Your task to perform on an android device: Go to Yahoo.com Image 0: 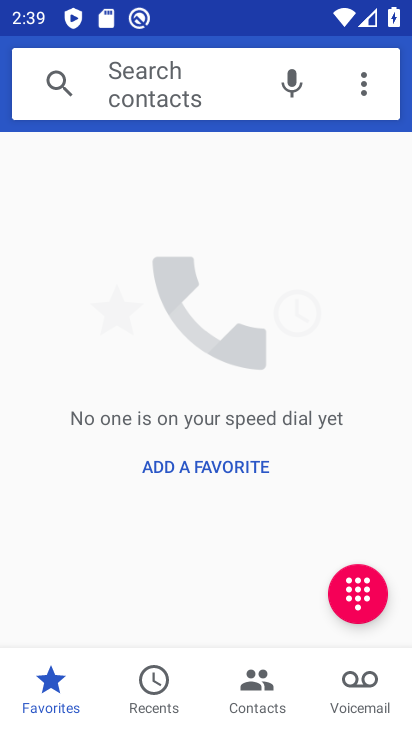
Step 0: press home button
Your task to perform on an android device: Go to Yahoo.com Image 1: 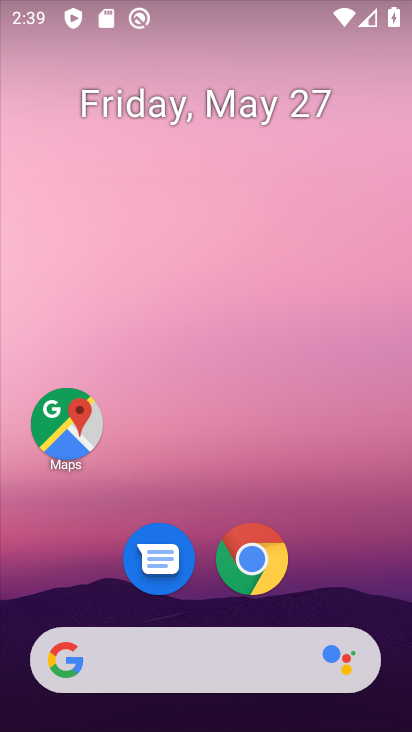
Step 1: click (253, 559)
Your task to perform on an android device: Go to Yahoo.com Image 2: 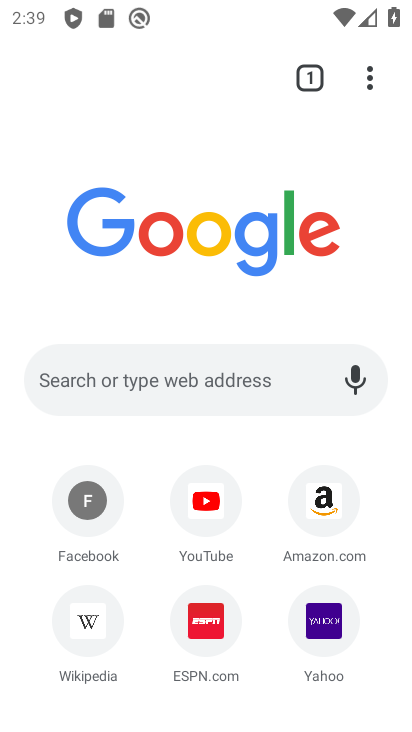
Step 2: click (253, 559)
Your task to perform on an android device: Go to Yahoo.com Image 3: 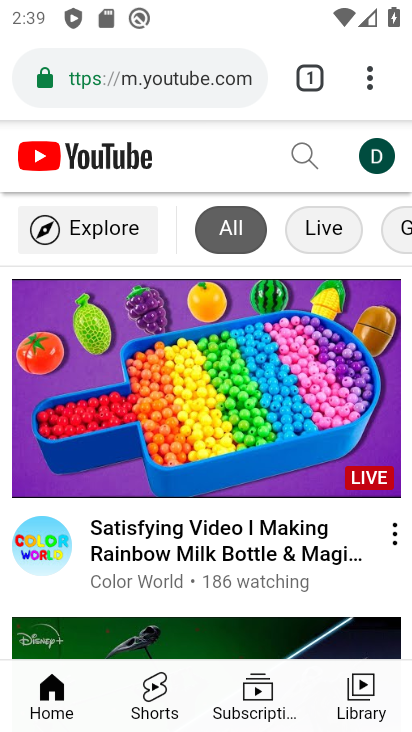
Step 3: click (135, 79)
Your task to perform on an android device: Go to Yahoo.com Image 4: 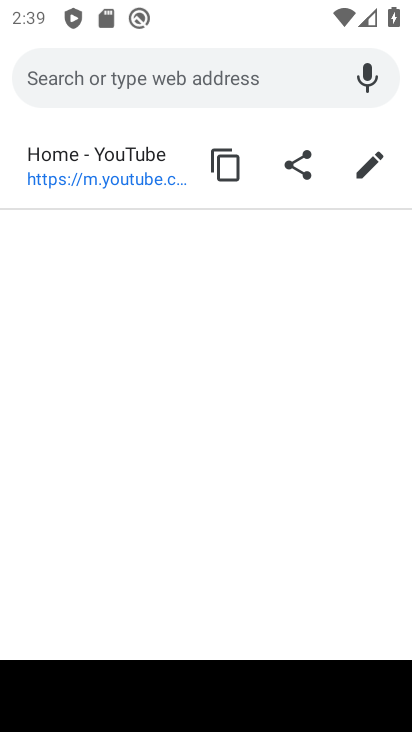
Step 4: type "yahoo.com"
Your task to perform on an android device: Go to Yahoo.com Image 5: 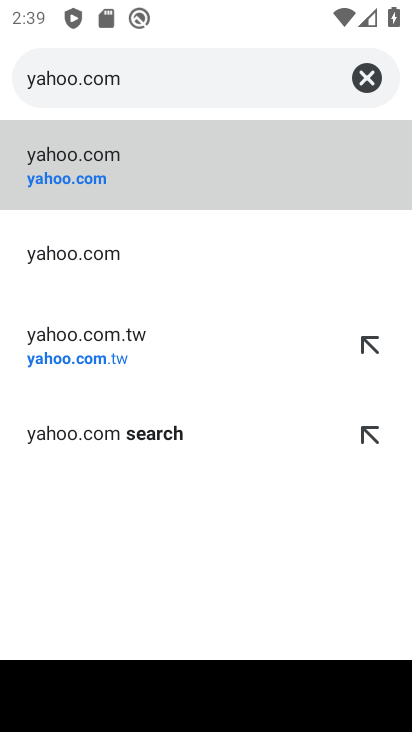
Step 5: click (305, 166)
Your task to perform on an android device: Go to Yahoo.com Image 6: 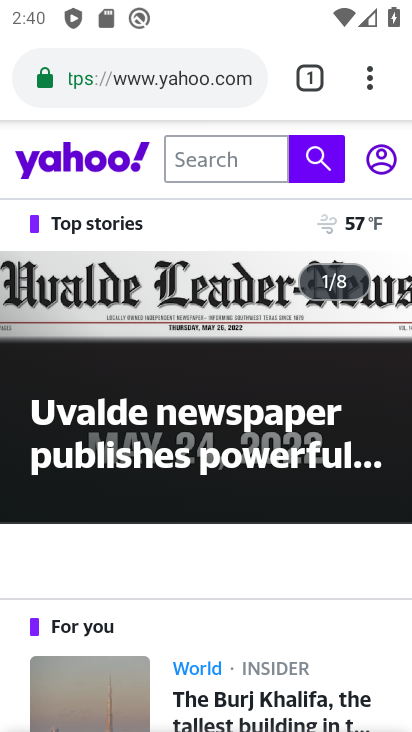
Step 6: task complete